Your task to perform on an android device: see creations saved in the google photos Image 0: 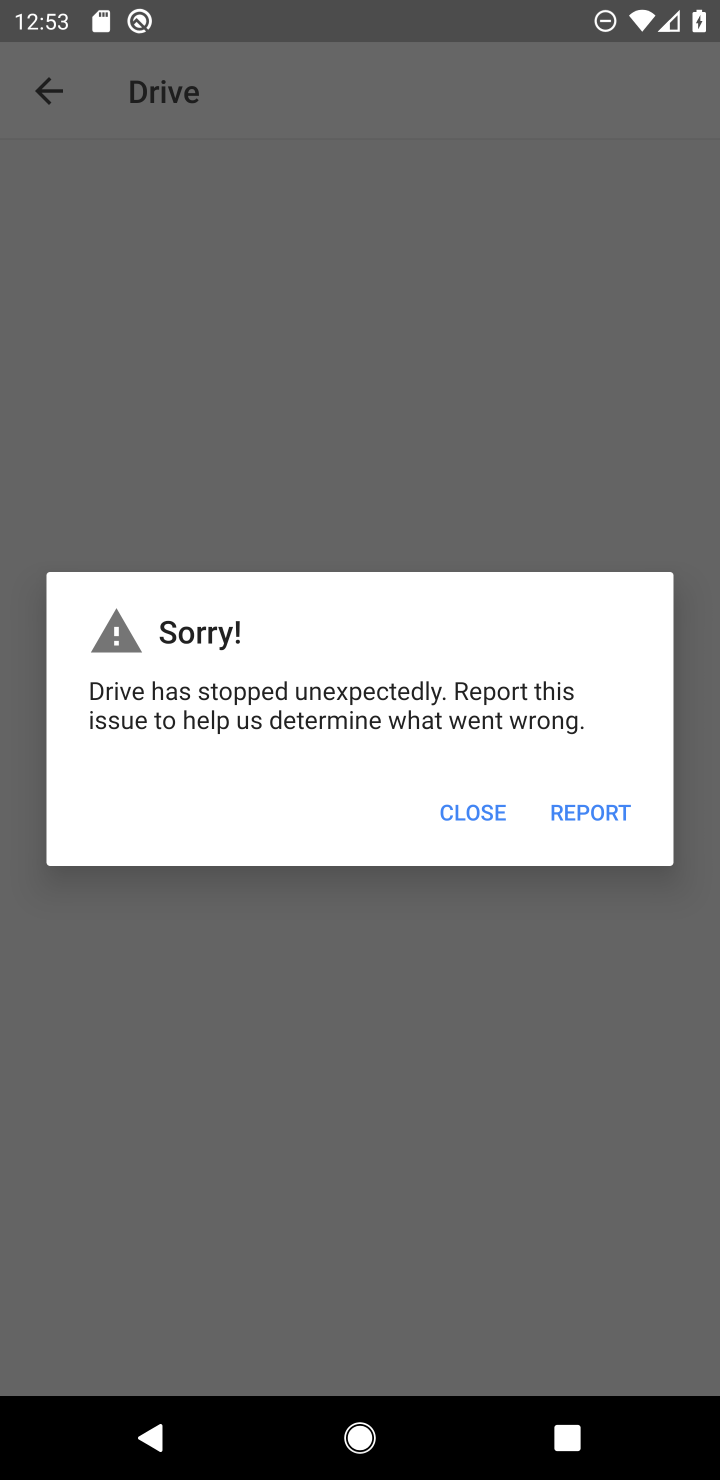
Step 0: press home button
Your task to perform on an android device: see creations saved in the google photos Image 1: 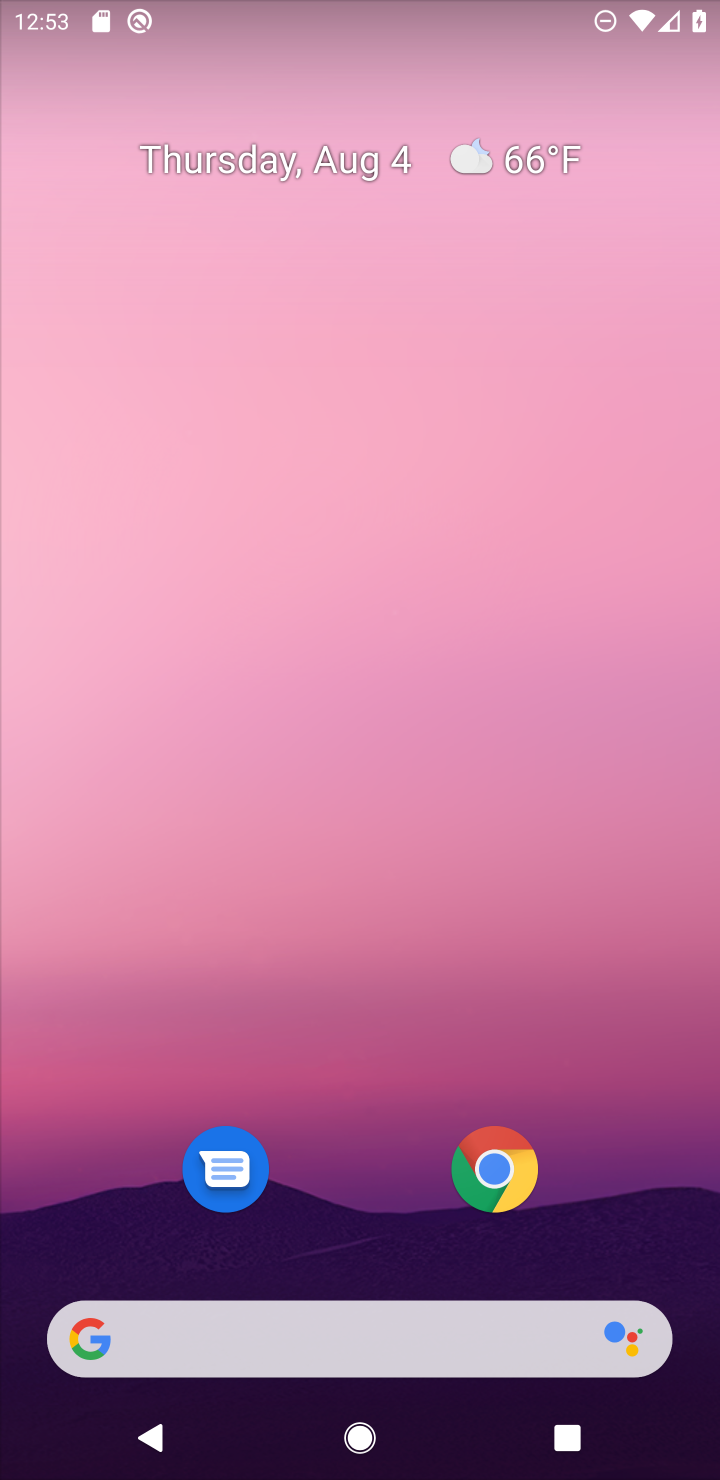
Step 1: drag from (342, 1269) to (355, 95)
Your task to perform on an android device: see creations saved in the google photos Image 2: 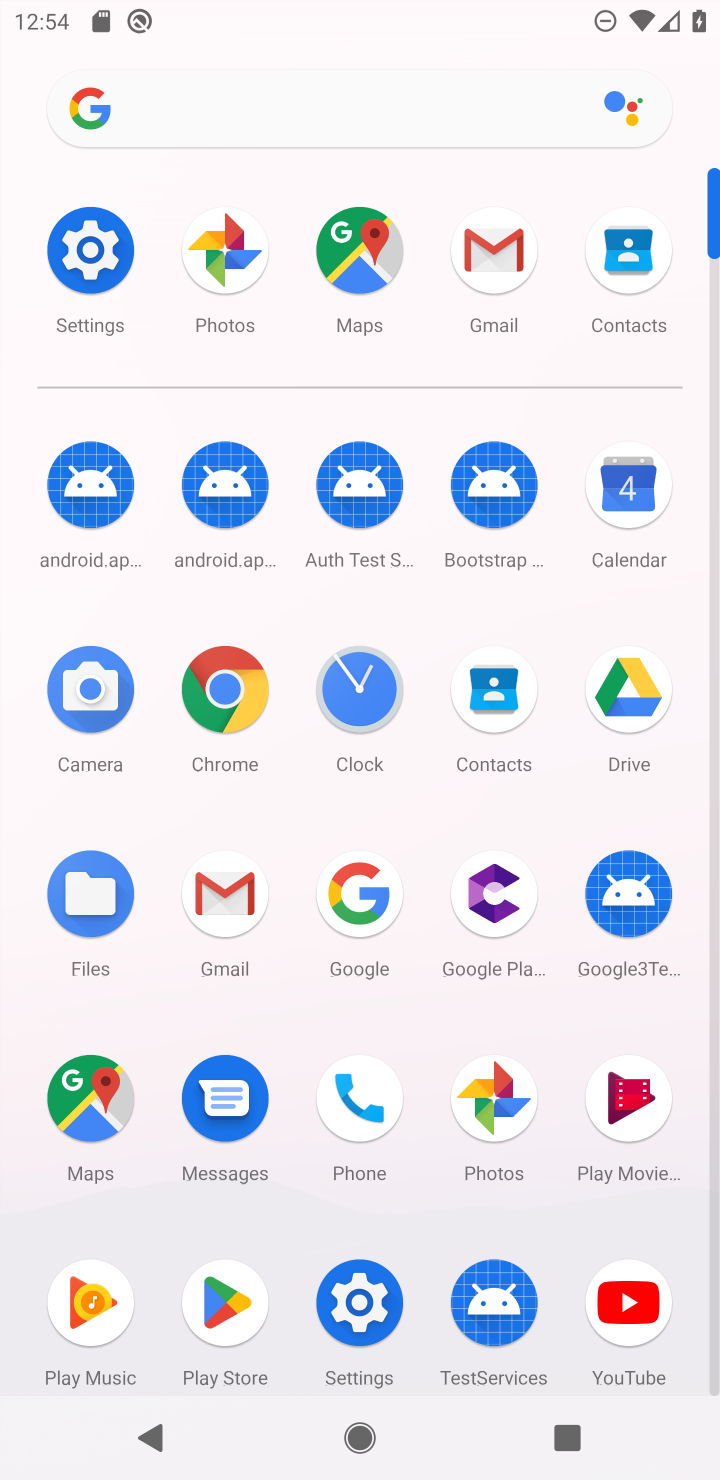
Step 2: click (487, 1119)
Your task to perform on an android device: see creations saved in the google photos Image 3: 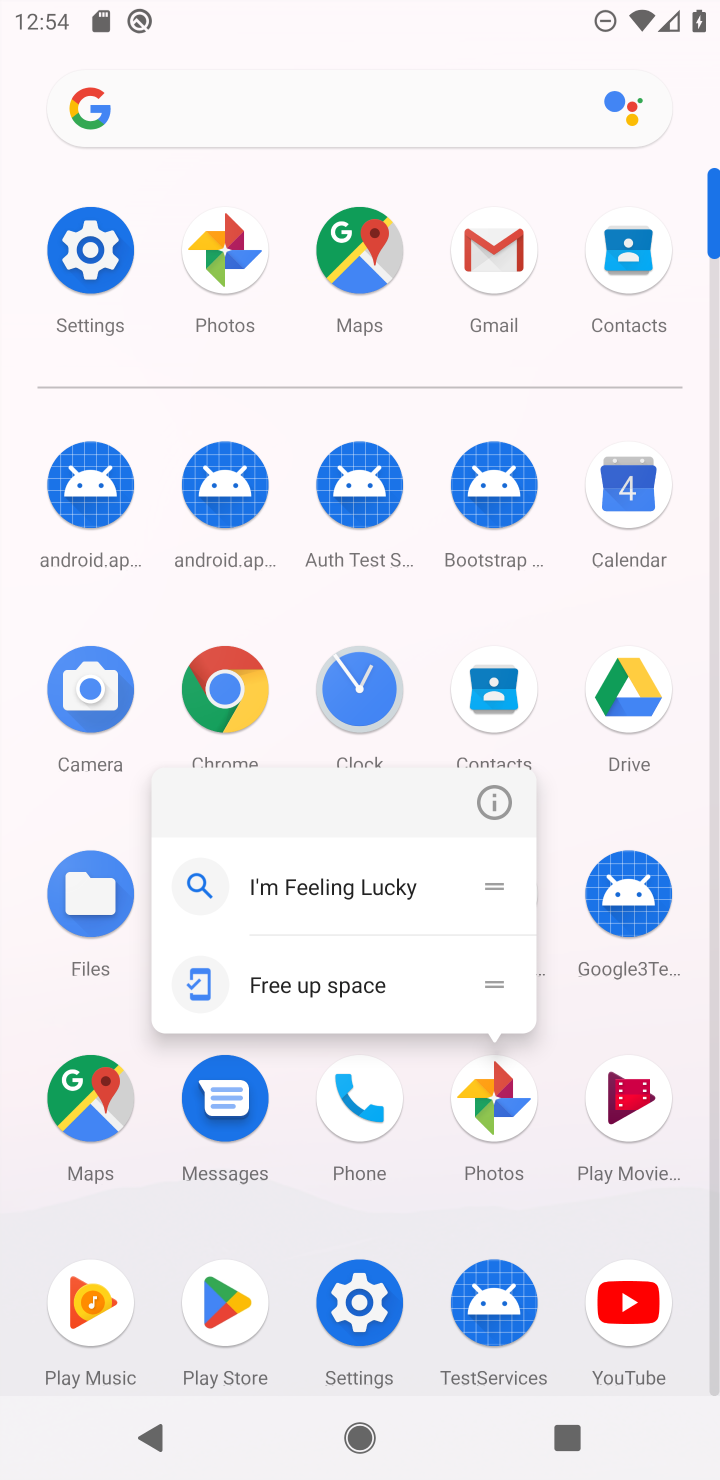
Step 3: click (497, 1107)
Your task to perform on an android device: see creations saved in the google photos Image 4: 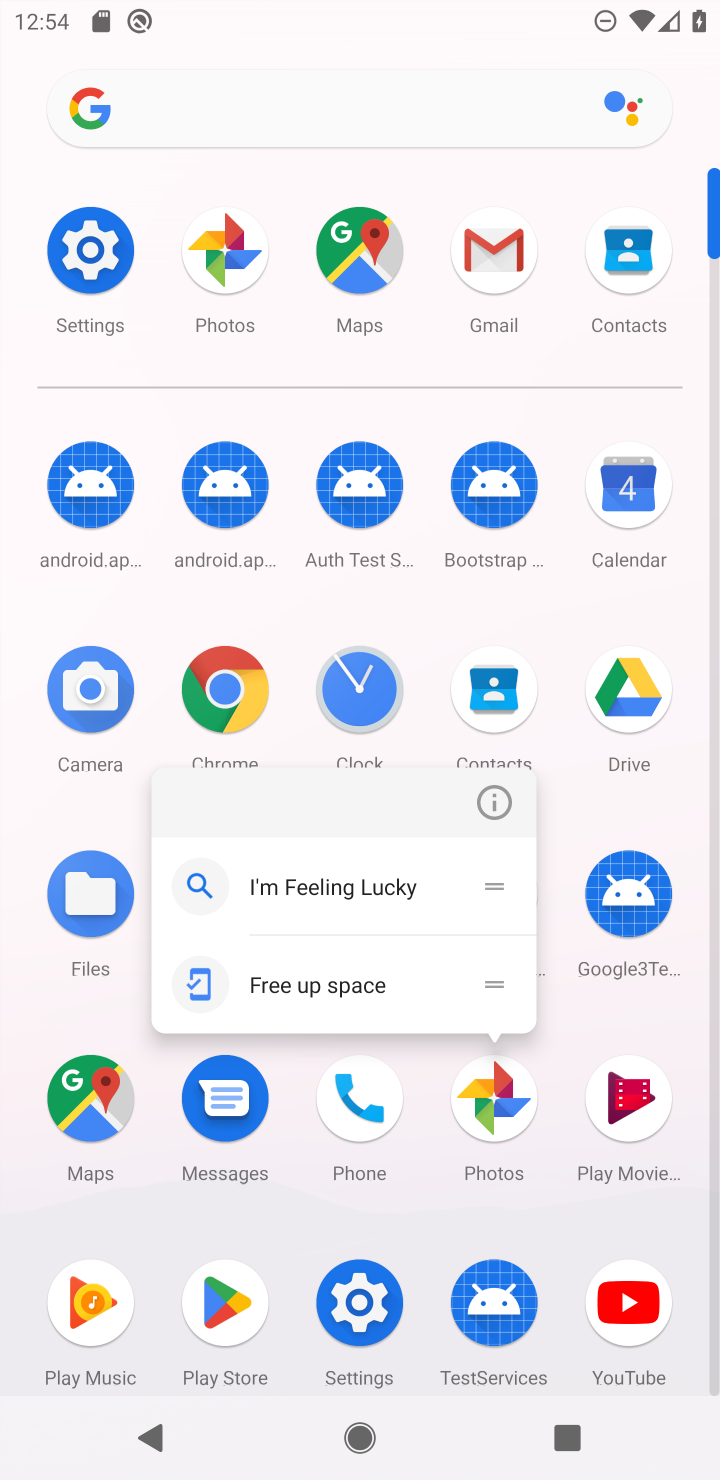
Step 4: click (507, 1112)
Your task to perform on an android device: see creations saved in the google photos Image 5: 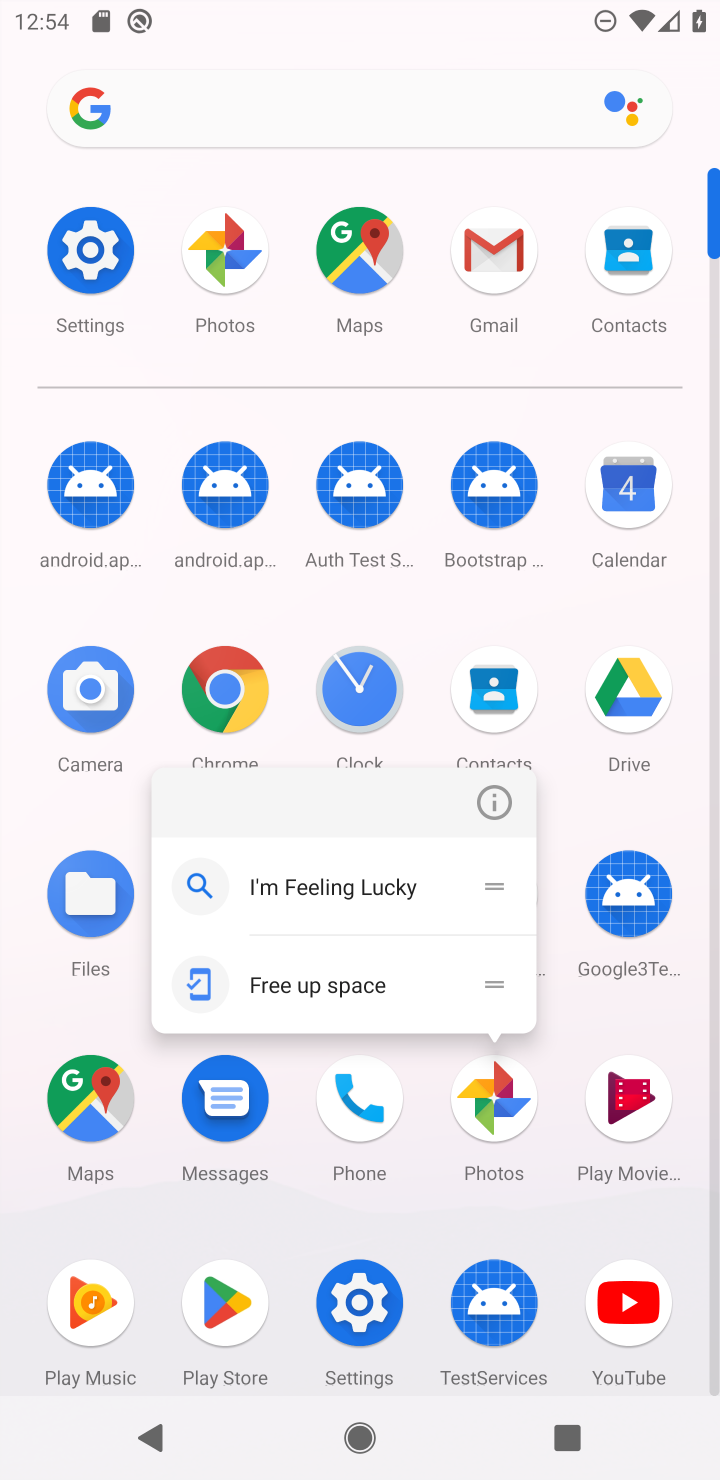
Step 5: click (506, 1107)
Your task to perform on an android device: see creations saved in the google photos Image 6: 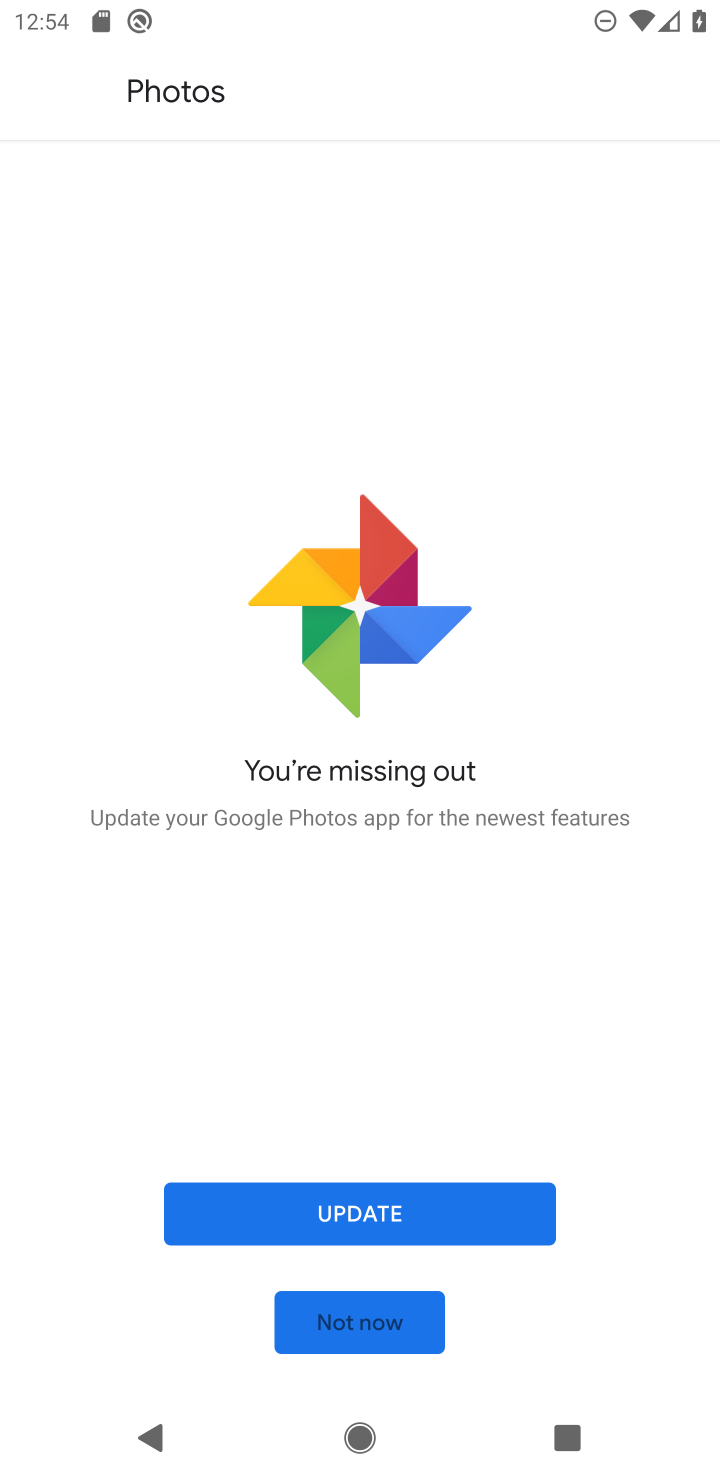
Step 6: click (391, 1322)
Your task to perform on an android device: see creations saved in the google photos Image 7: 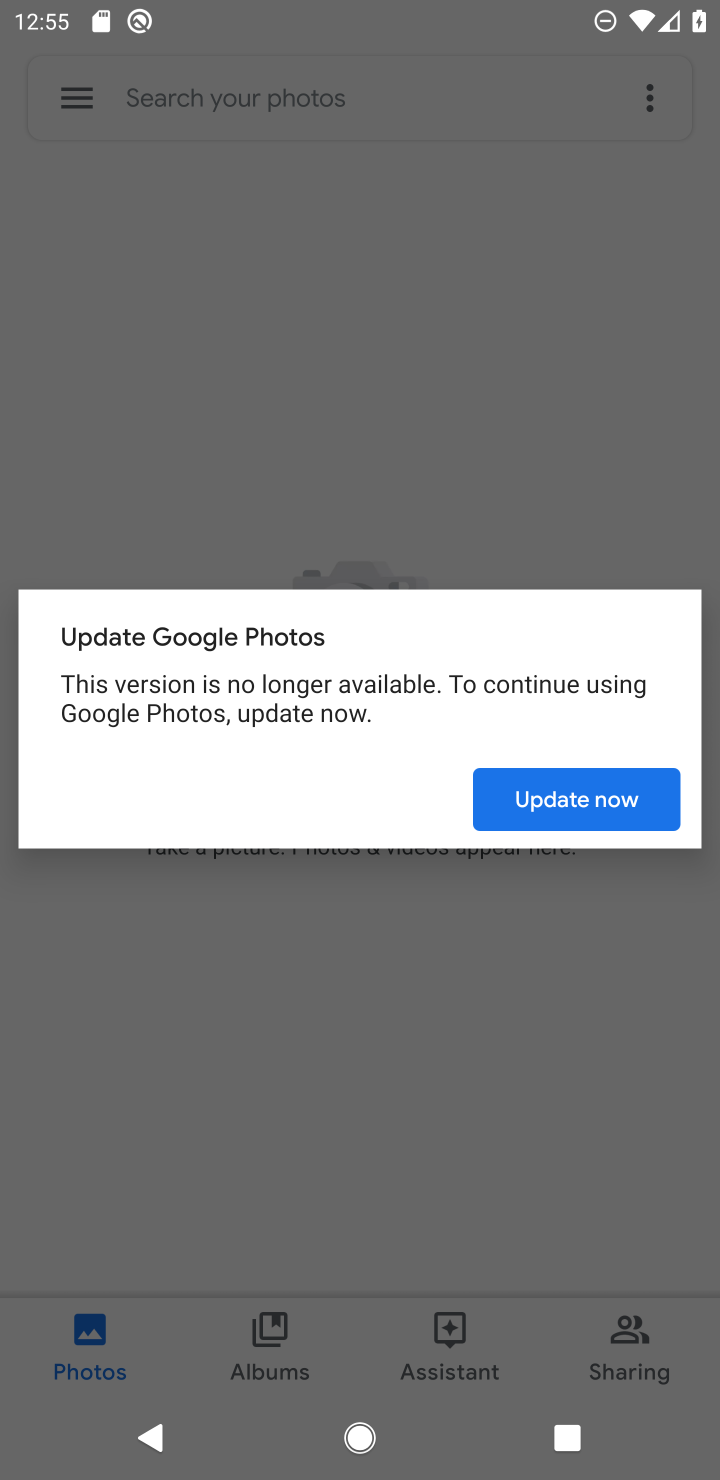
Step 7: click (620, 809)
Your task to perform on an android device: see creations saved in the google photos Image 8: 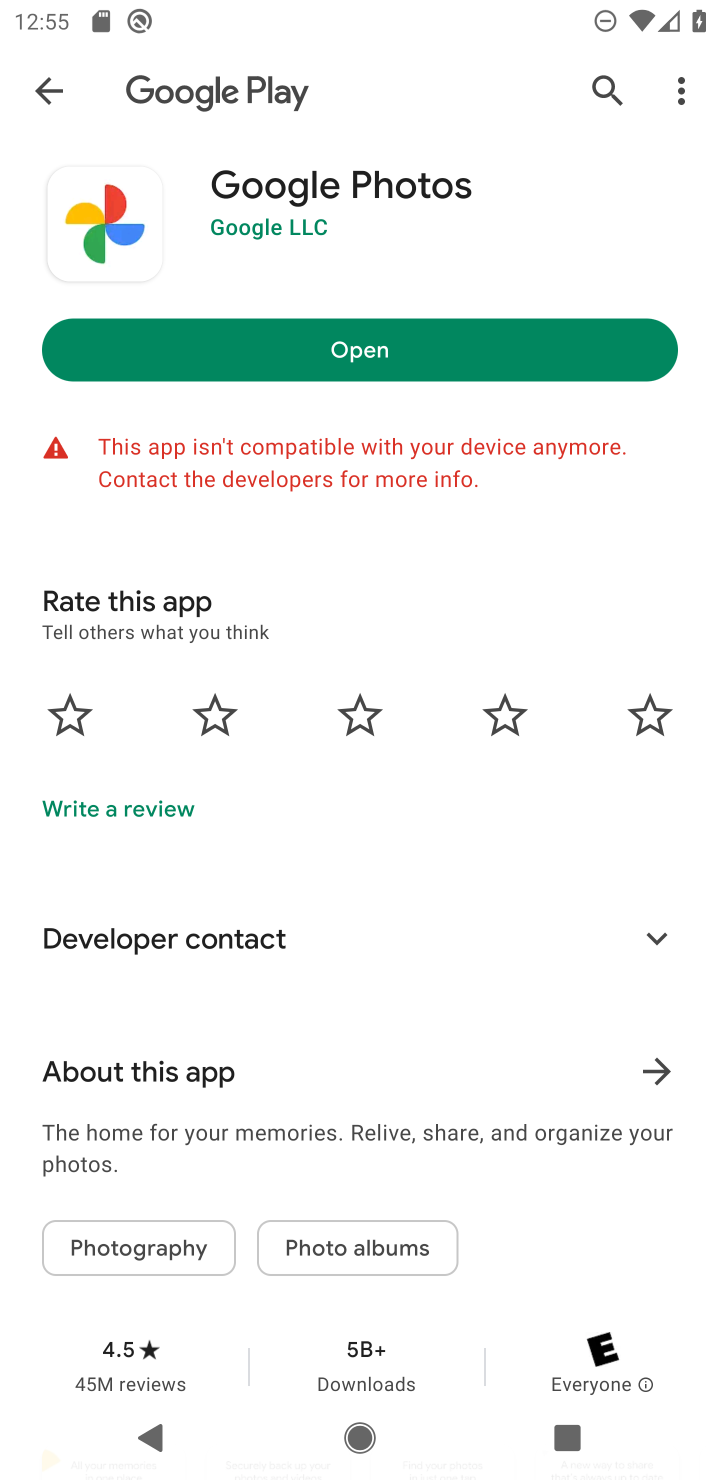
Step 8: click (344, 371)
Your task to perform on an android device: see creations saved in the google photos Image 9: 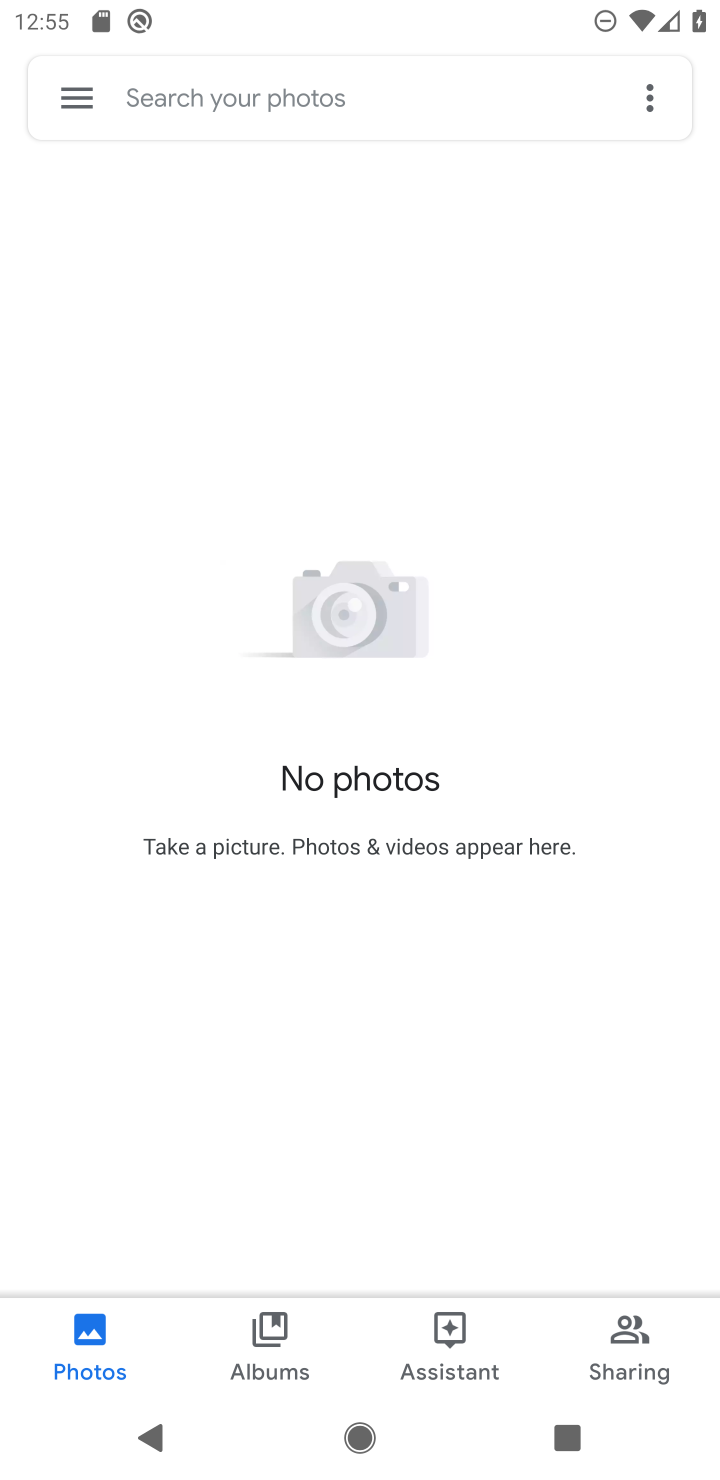
Step 9: task complete